Your task to perform on an android device: check storage Image 0: 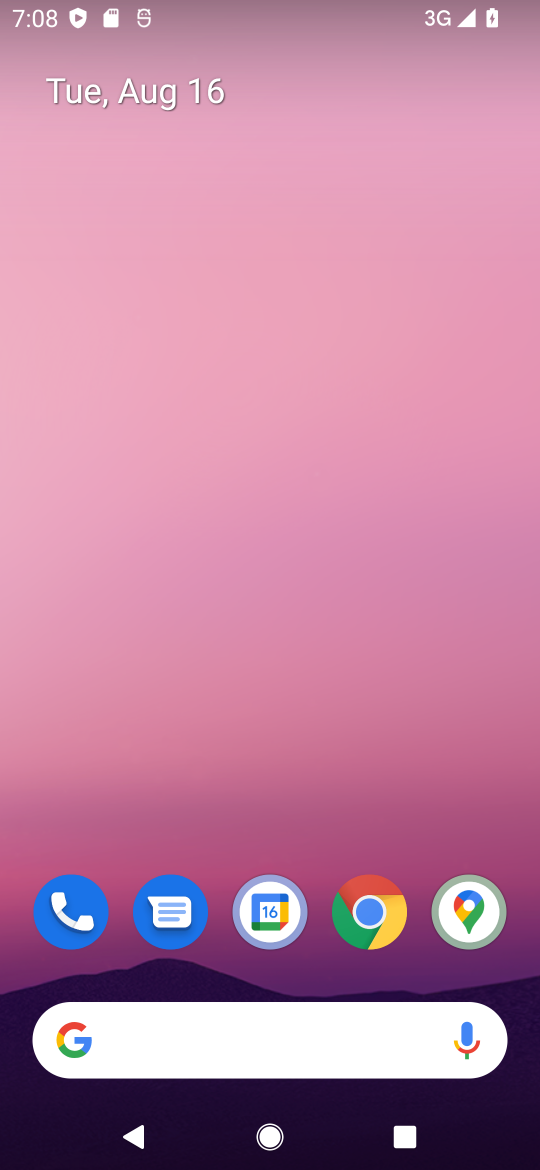
Step 0: drag from (426, 965) to (356, 237)
Your task to perform on an android device: check storage Image 1: 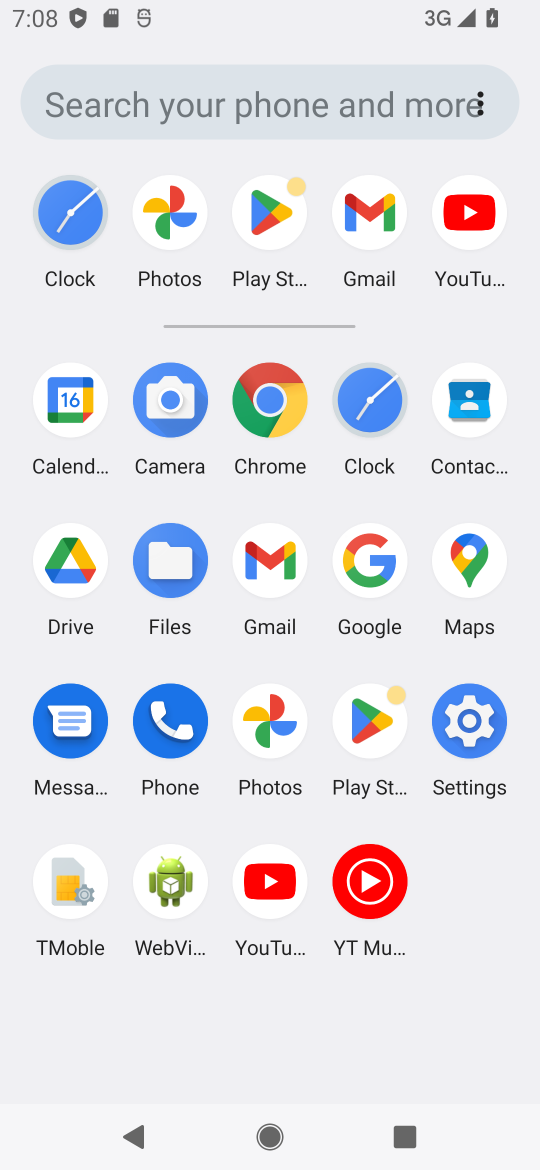
Step 1: click (470, 724)
Your task to perform on an android device: check storage Image 2: 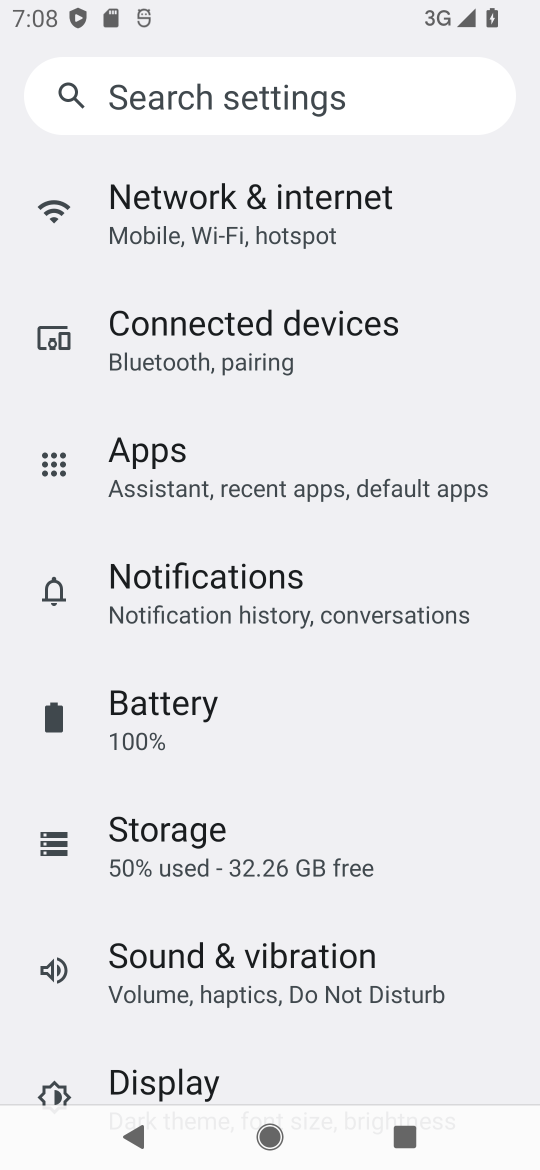
Step 2: click (154, 831)
Your task to perform on an android device: check storage Image 3: 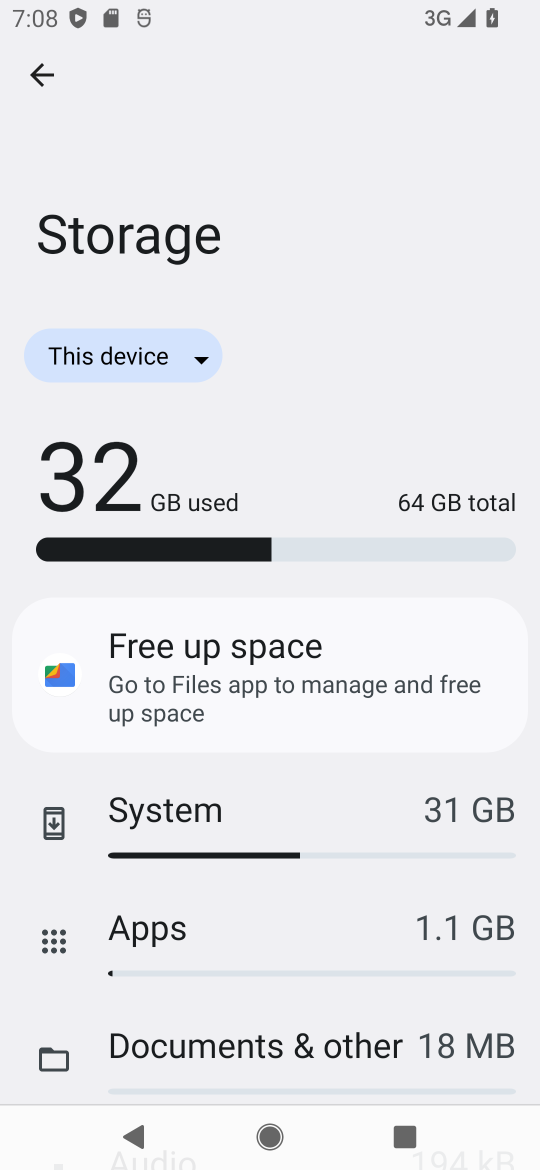
Step 3: task complete